Your task to perform on an android device: Find coffee shops on Maps Image 0: 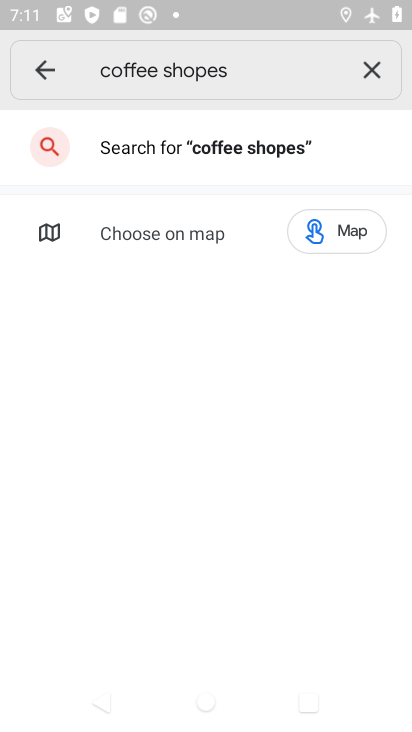
Step 0: press back button
Your task to perform on an android device: Find coffee shops on Maps Image 1: 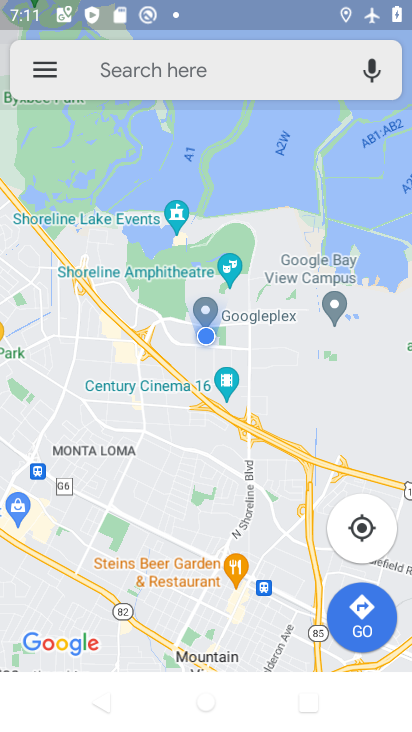
Step 1: press back button
Your task to perform on an android device: Find coffee shops on Maps Image 2: 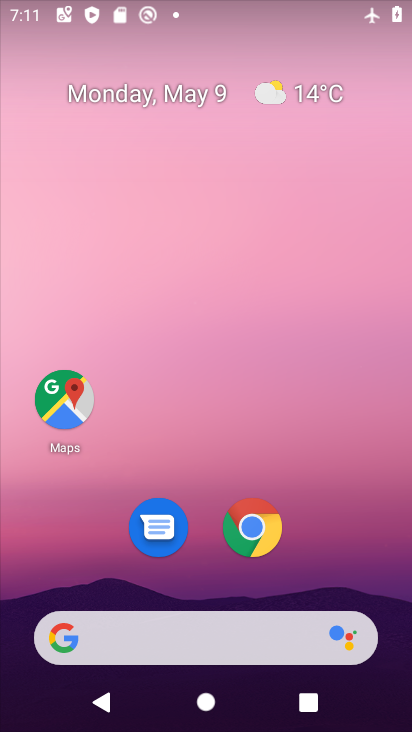
Step 2: click (64, 399)
Your task to perform on an android device: Find coffee shops on Maps Image 3: 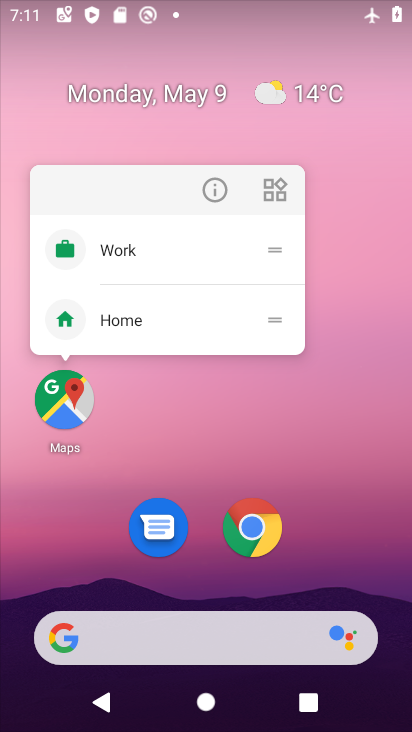
Step 3: click (67, 402)
Your task to perform on an android device: Find coffee shops on Maps Image 4: 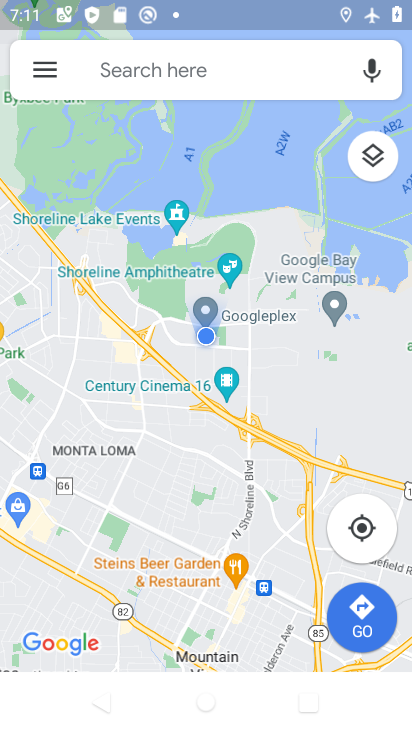
Step 4: click (152, 77)
Your task to perform on an android device: Find coffee shops on Maps Image 5: 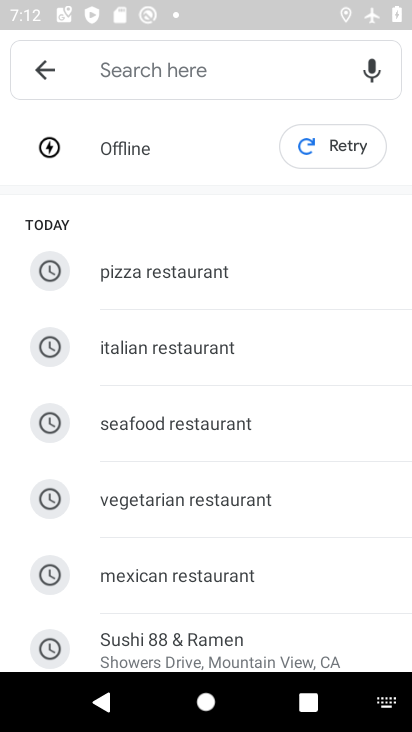
Step 5: type "coffee shops"
Your task to perform on an android device: Find coffee shops on Maps Image 6: 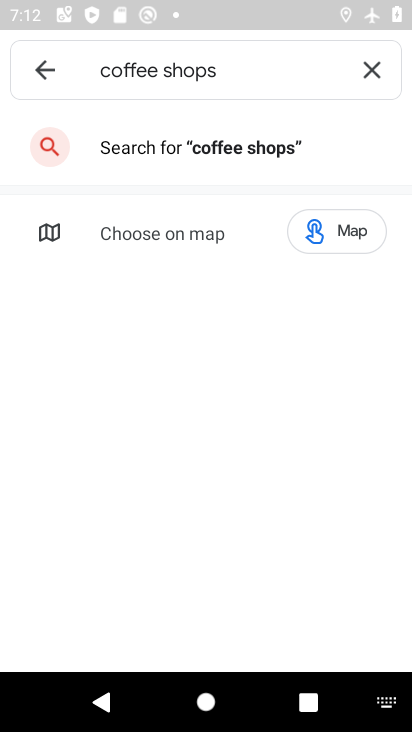
Step 6: task complete